Your task to perform on an android device: What's the weather going to be tomorrow? Image 0: 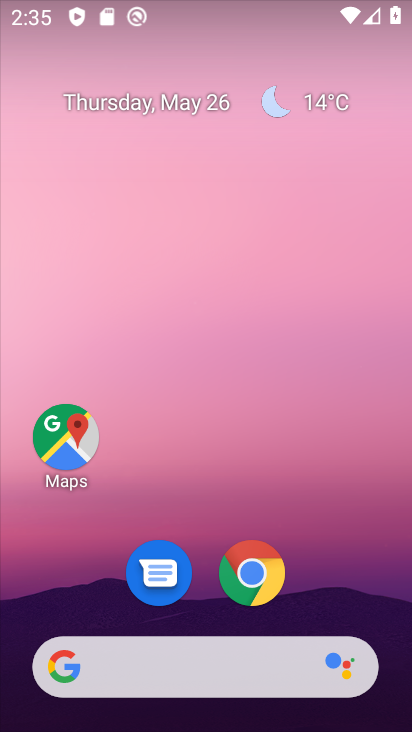
Step 0: drag from (323, 545) to (235, 39)
Your task to perform on an android device: What's the weather going to be tomorrow? Image 1: 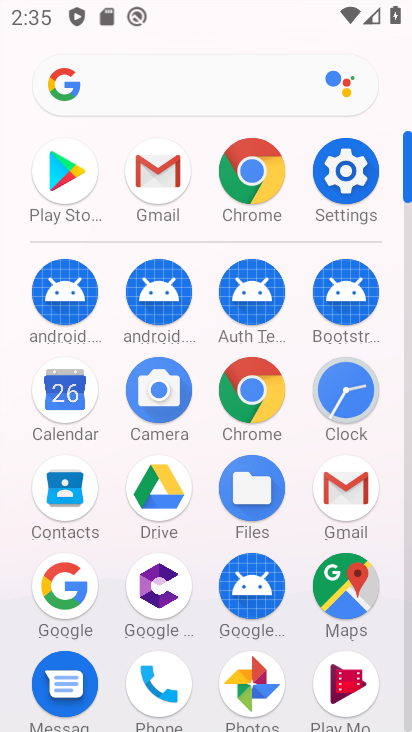
Step 1: drag from (13, 579) to (21, 256)
Your task to perform on an android device: What's the weather going to be tomorrow? Image 2: 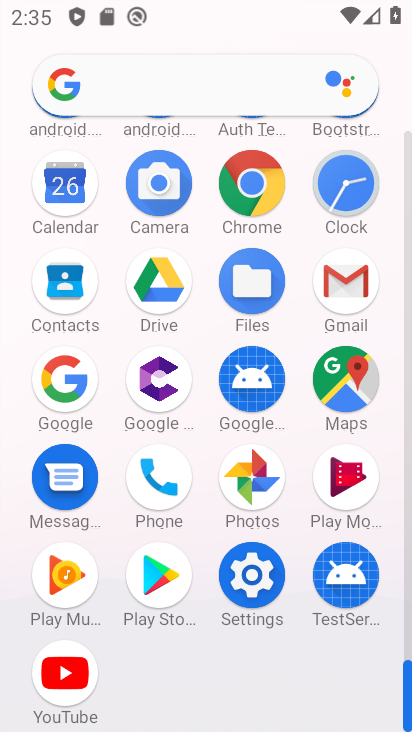
Step 2: click (248, 176)
Your task to perform on an android device: What's the weather going to be tomorrow? Image 3: 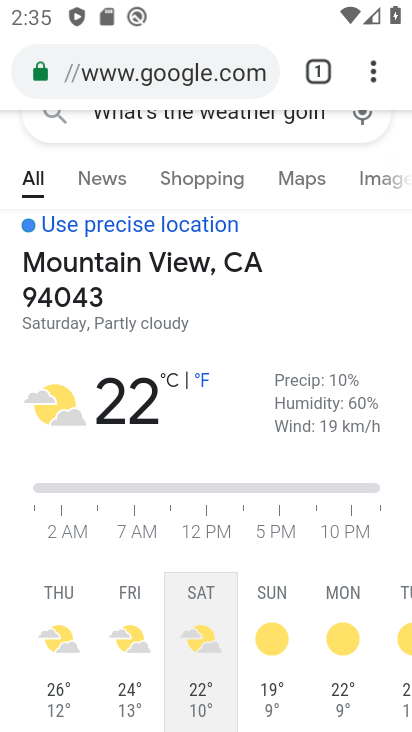
Step 3: click (189, 57)
Your task to perform on an android device: What's the weather going to be tomorrow? Image 4: 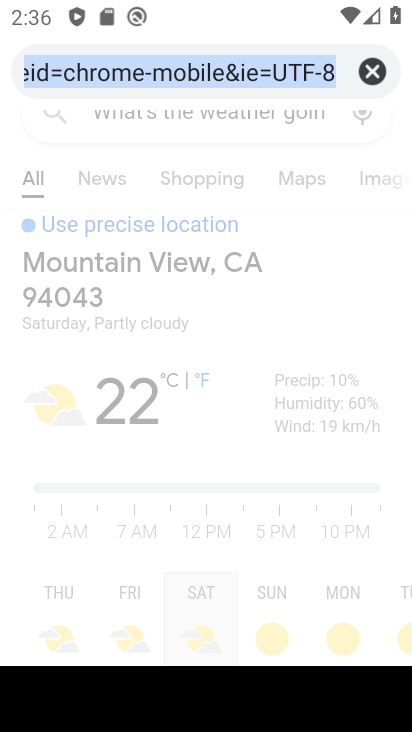
Step 4: click (369, 73)
Your task to perform on an android device: What's the weather going to be tomorrow? Image 5: 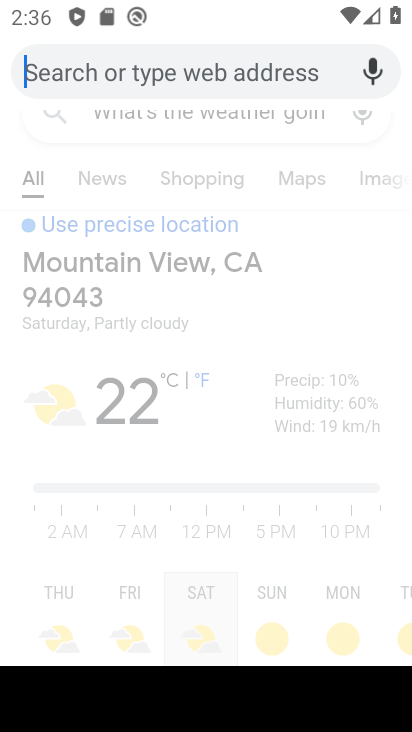
Step 5: type "What's the weather going to be tomorrow?"
Your task to perform on an android device: What's the weather going to be tomorrow? Image 6: 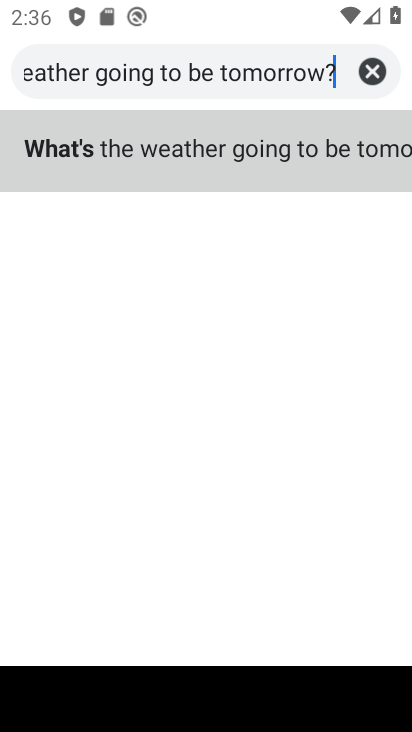
Step 6: type ""
Your task to perform on an android device: What's the weather going to be tomorrow? Image 7: 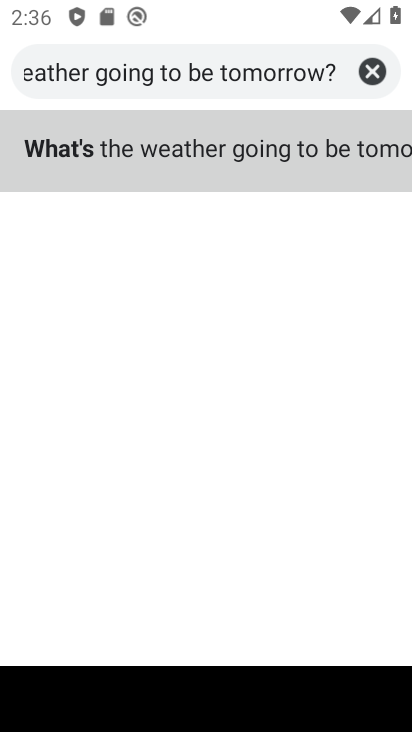
Step 7: click (184, 143)
Your task to perform on an android device: What's the weather going to be tomorrow? Image 8: 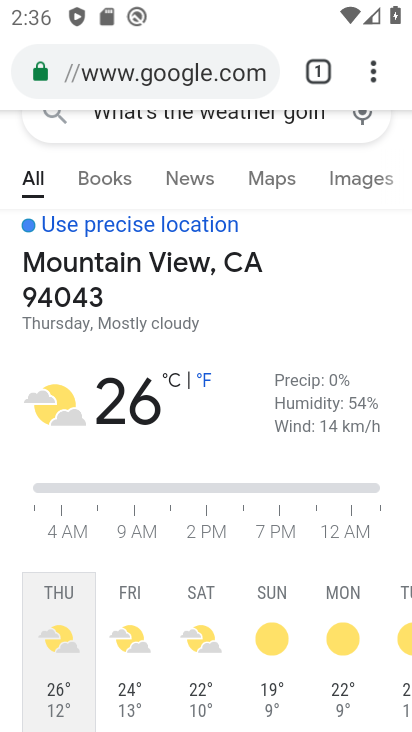
Step 8: task complete